Your task to perform on an android device: What is the recent news? Image 0: 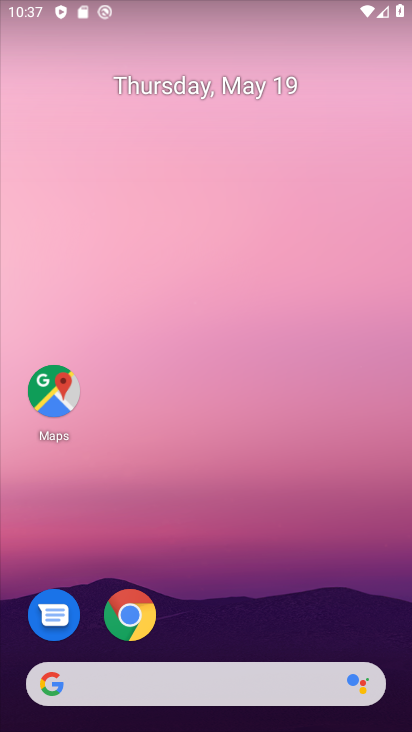
Step 0: drag from (185, 606) to (33, 107)
Your task to perform on an android device: What is the recent news? Image 1: 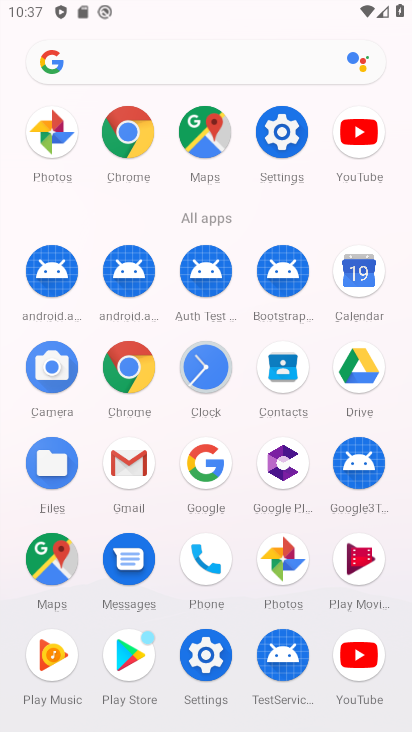
Step 1: task complete